Your task to perform on an android device: toggle data saver in the chrome app Image 0: 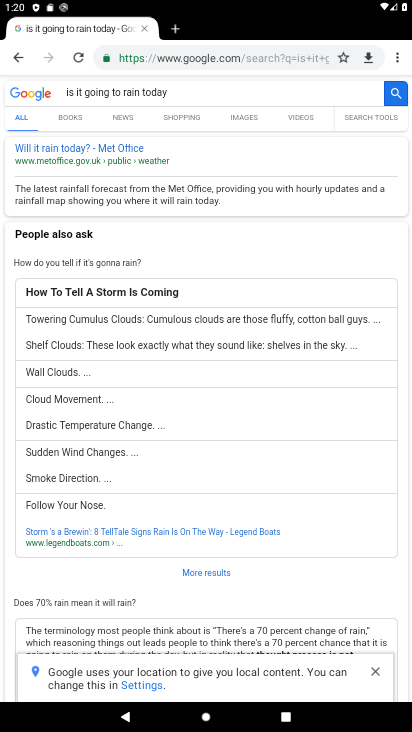
Step 0: drag from (259, 487) to (178, 111)
Your task to perform on an android device: toggle data saver in the chrome app Image 1: 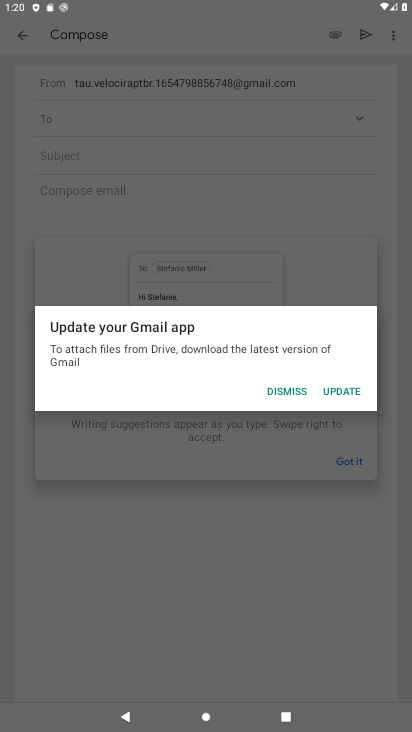
Step 1: press home button
Your task to perform on an android device: toggle data saver in the chrome app Image 2: 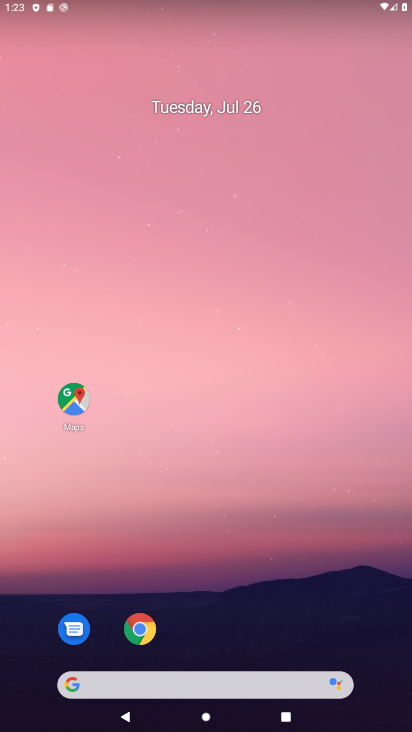
Step 2: drag from (206, 686) to (368, 8)
Your task to perform on an android device: toggle data saver in the chrome app Image 3: 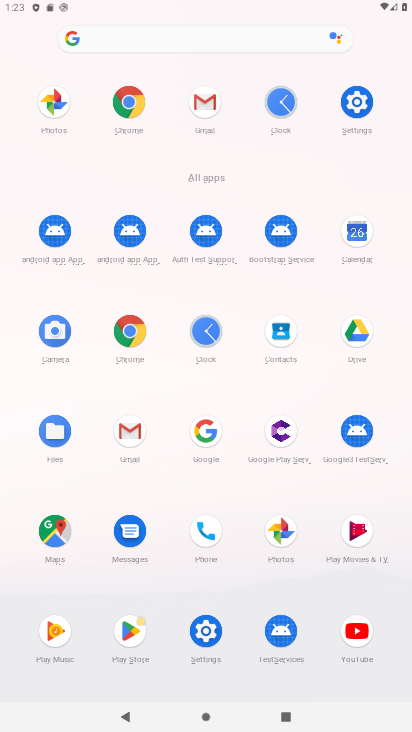
Step 3: click (128, 330)
Your task to perform on an android device: toggle data saver in the chrome app Image 4: 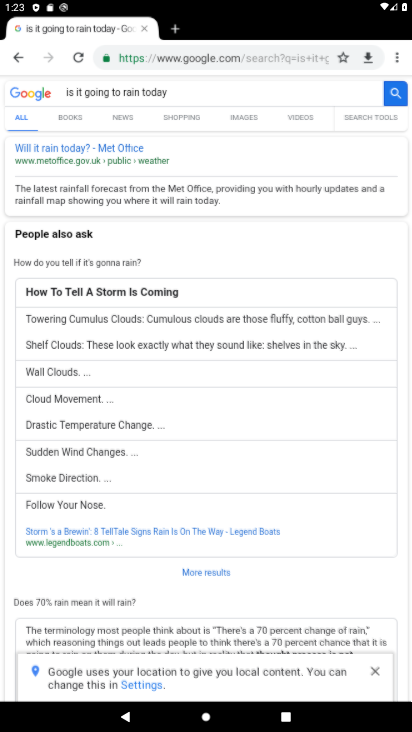
Step 4: drag from (399, 52) to (313, 358)
Your task to perform on an android device: toggle data saver in the chrome app Image 5: 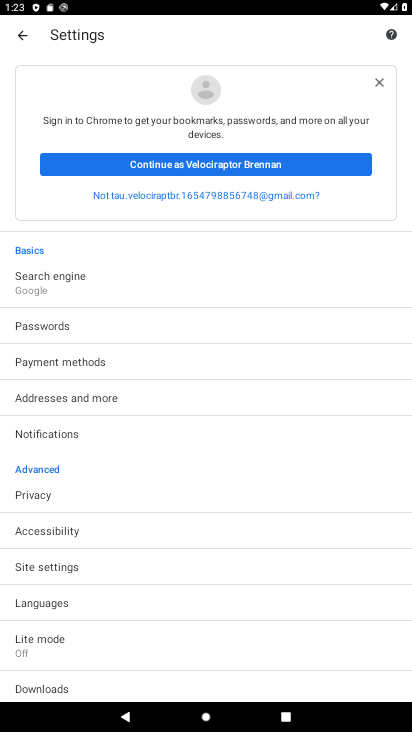
Step 5: click (81, 631)
Your task to perform on an android device: toggle data saver in the chrome app Image 6: 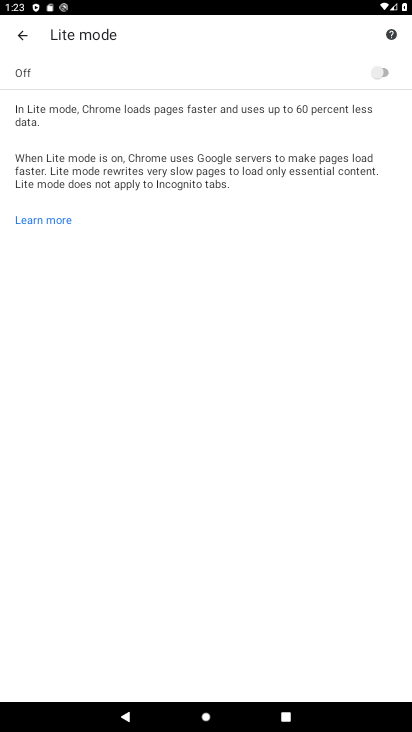
Step 6: click (380, 73)
Your task to perform on an android device: toggle data saver in the chrome app Image 7: 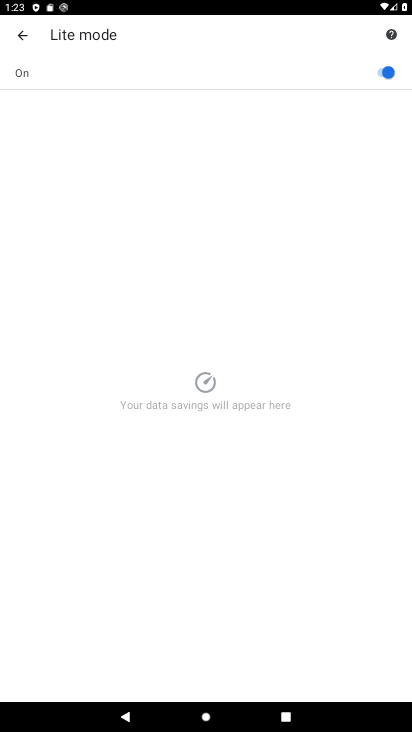
Step 7: task complete